Your task to perform on an android device: Go to accessibility settings Image 0: 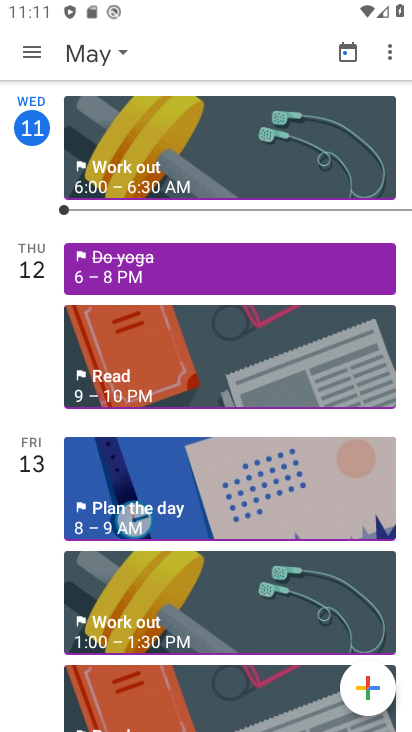
Step 0: press back button
Your task to perform on an android device: Go to accessibility settings Image 1: 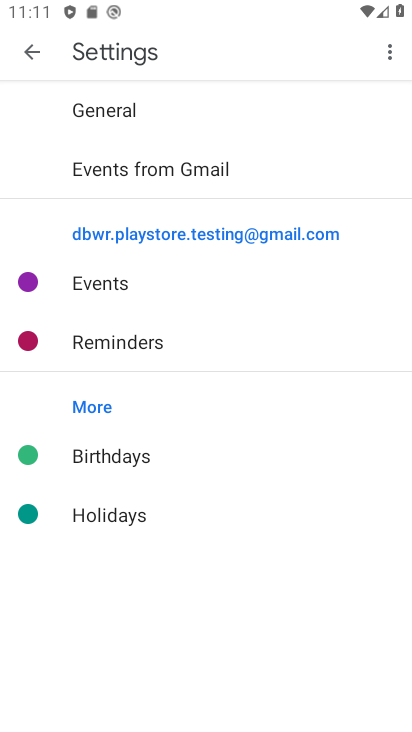
Step 1: press home button
Your task to perform on an android device: Go to accessibility settings Image 2: 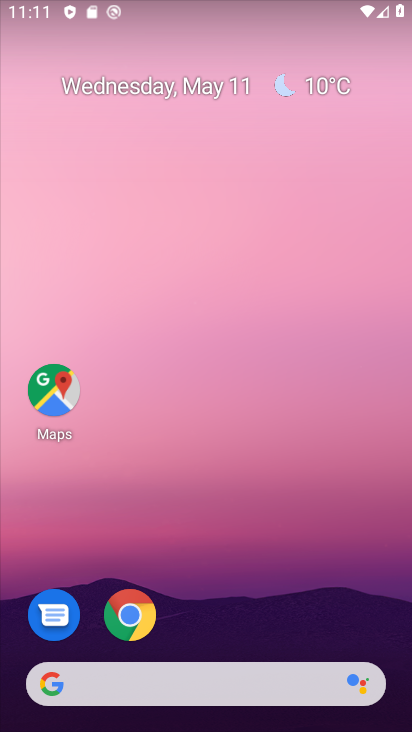
Step 2: drag from (181, 653) to (265, 216)
Your task to perform on an android device: Go to accessibility settings Image 3: 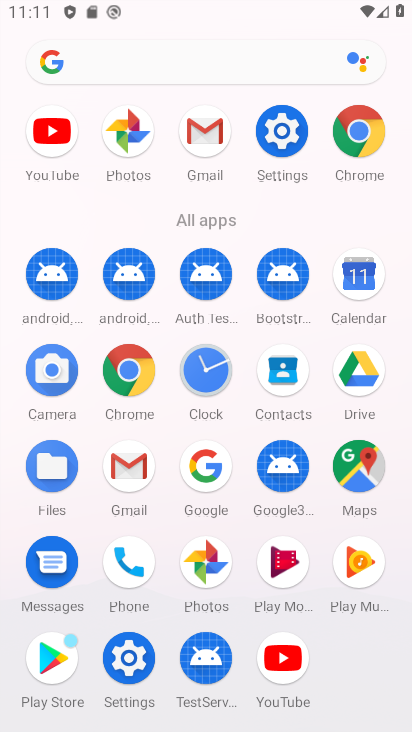
Step 3: click (124, 662)
Your task to perform on an android device: Go to accessibility settings Image 4: 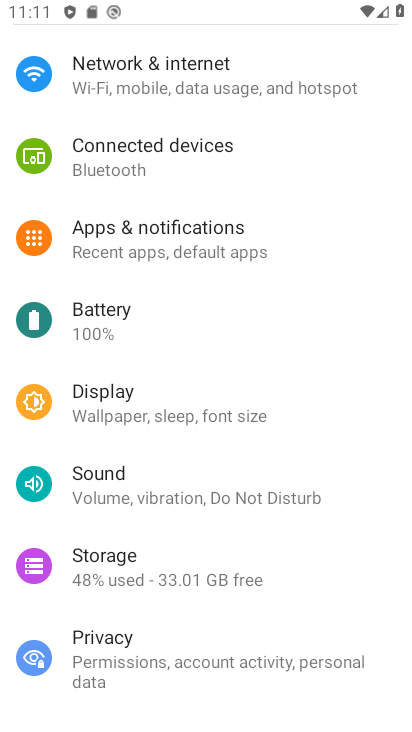
Step 4: drag from (141, 660) to (387, 106)
Your task to perform on an android device: Go to accessibility settings Image 5: 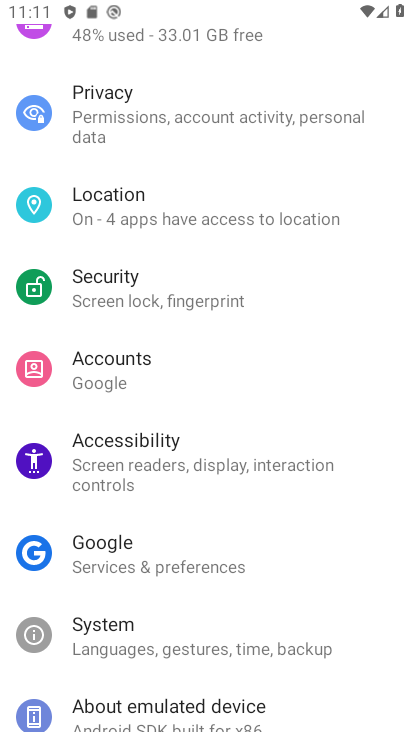
Step 5: click (175, 460)
Your task to perform on an android device: Go to accessibility settings Image 6: 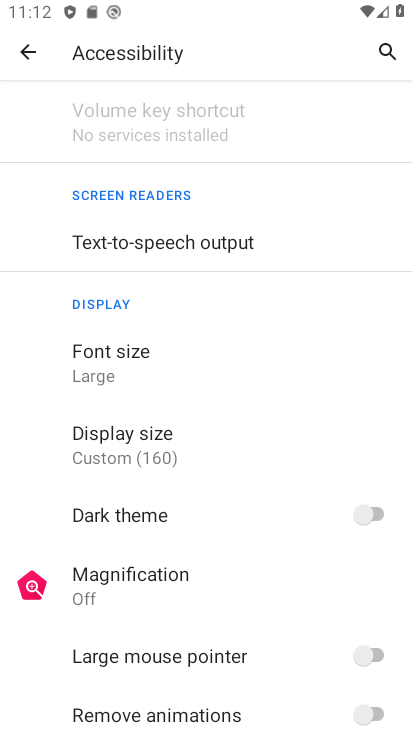
Step 6: task complete